Your task to perform on an android device: What's the weather going to be tomorrow? Image 0: 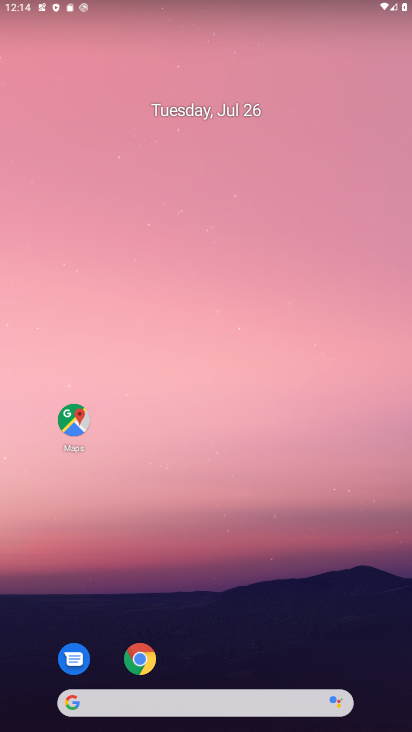
Step 0: drag from (215, 657) to (202, 413)
Your task to perform on an android device: What's the weather going to be tomorrow? Image 1: 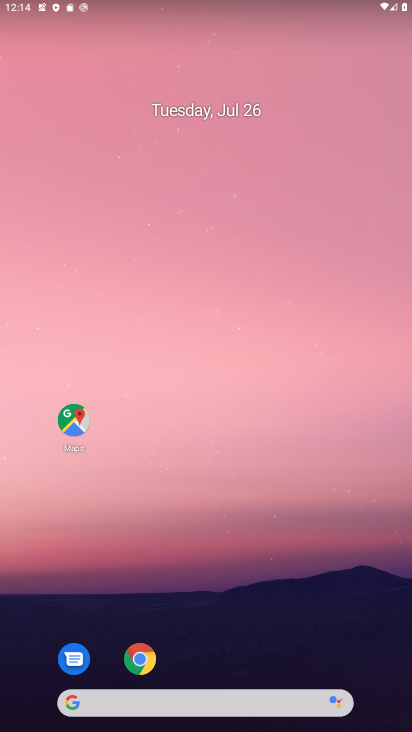
Step 1: drag from (217, 653) to (232, 341)
Your task to perform on an android device: What's the weather going to be tomorrow? Image 2: 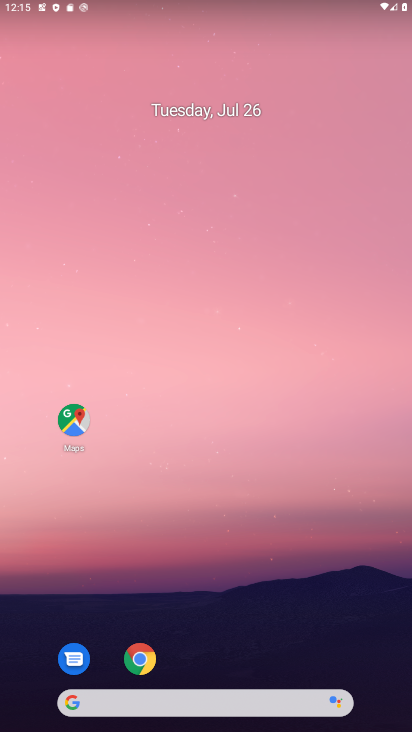
Step 2: drag from (191, 610) to (209, 314)
Your task to perform on an android device: What's the weather going to be tomorrow? Image 3: 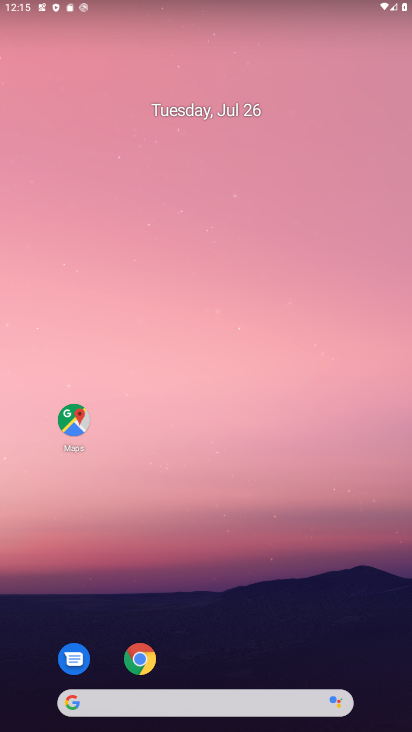
Step 3: drag from (191, 664) to (233, 259)
Your task to perform on an android device: What's the weather going to be tomorrow? Image 4: 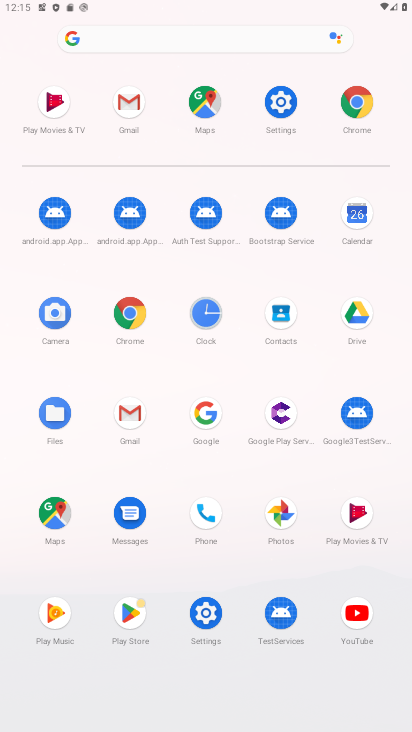
Step 4: click (350, 212)
Your task to perform on an android device: What's the weather going to be tomorrow? Image 5: 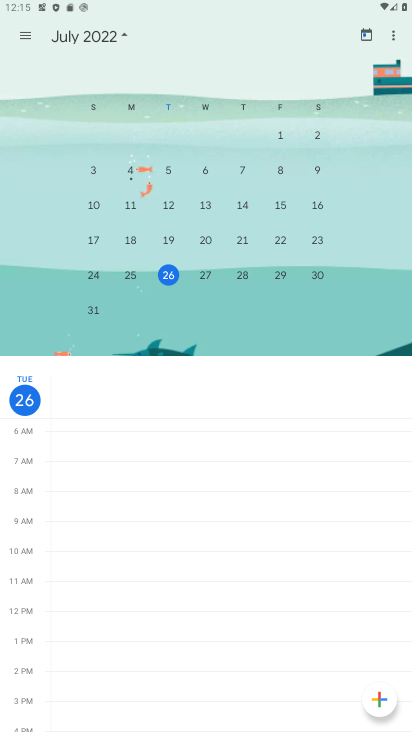
Step 5: press home button
Your task to perform on an android device: What's the weather going to be tomorrow? Image 6: 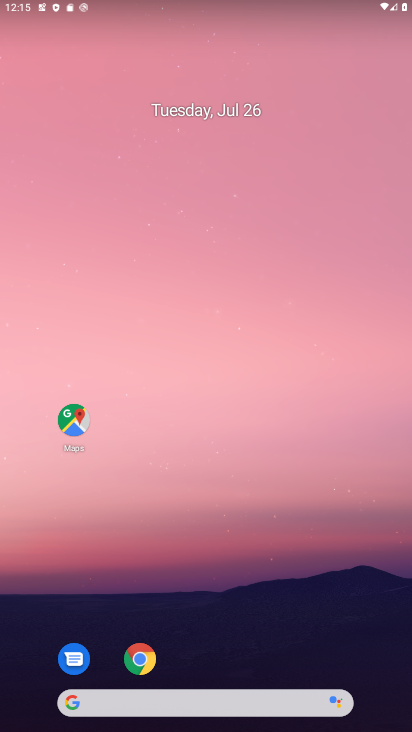
Step 6: drag from (209, 632) to (241, 308)
Your task to perform on an android device: What's the weather going to be tomorrow? Image 7: 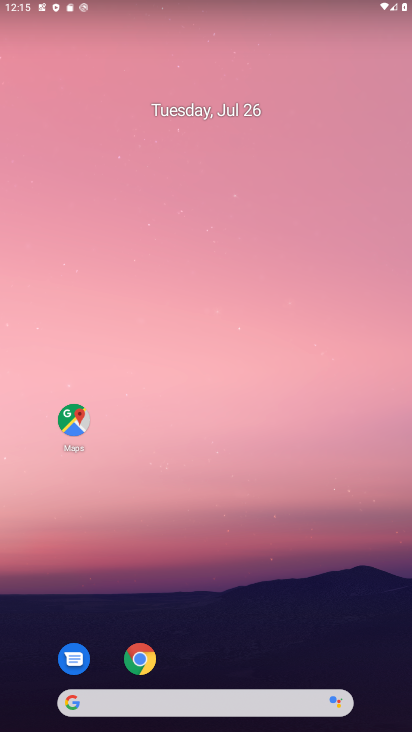
Step 7: drag from (219, 638) to (271, 84)
Your task to perform on an android device: What's the weather going to be tomorrow? Image 8: 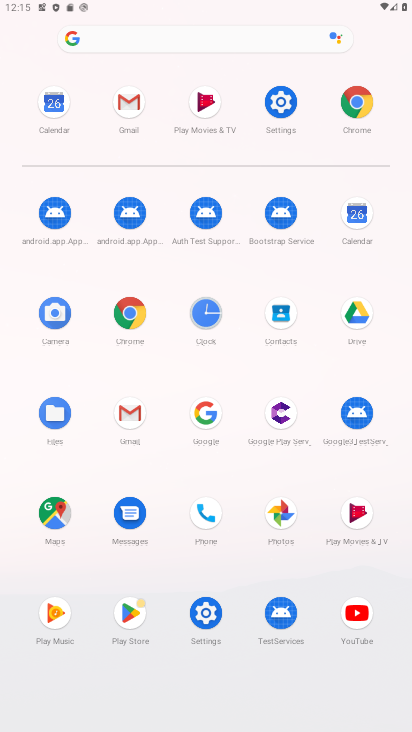
Step 8: click (183, 37)
Your task to perform on an android device: What's the weather going to be tomorrow? Image 9: 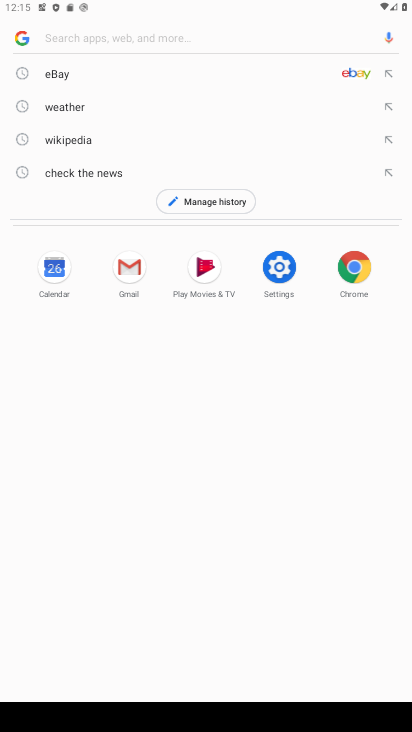
Step 9: click (69, 103)
Your task to perform on an android device: What's the weather going to be tomorrow? Image 10: 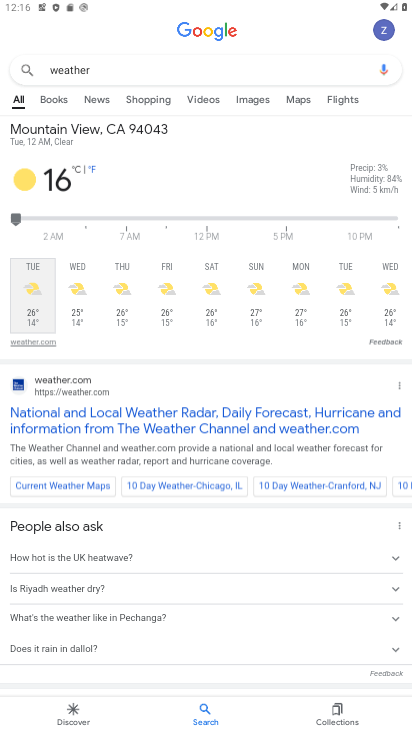
Step 10: task complete